Your task to perform on an android device: Open Chrome and go to settings Image 0: 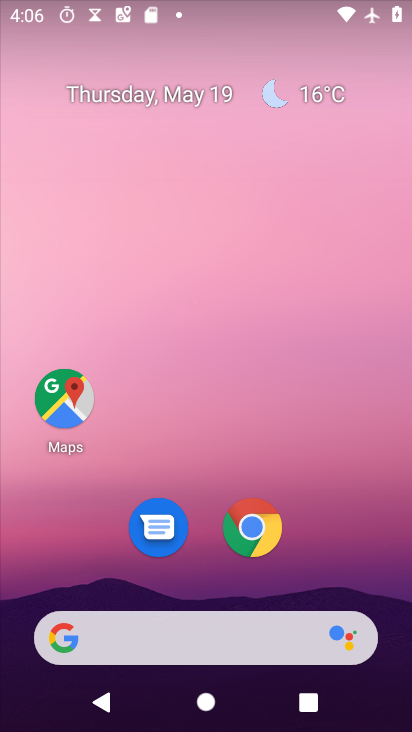
Step 0: click (250, 536)
Your task to perform on an android device: Open Chrome and go to settings Image 1: 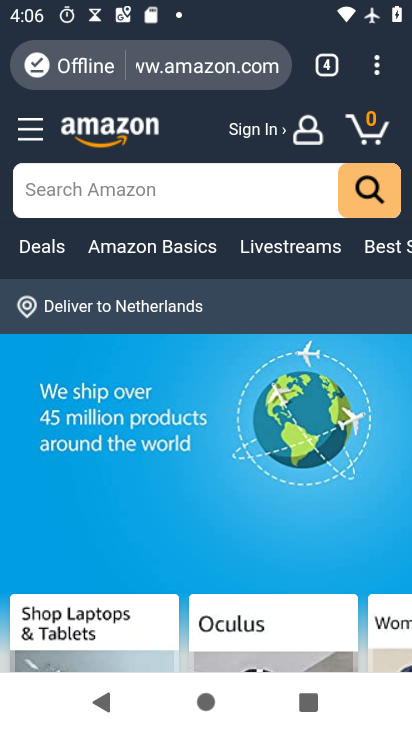
Step 1: click (372, 69)
Your task to perform on an android device: Open Chrome and go to settings Image 2: 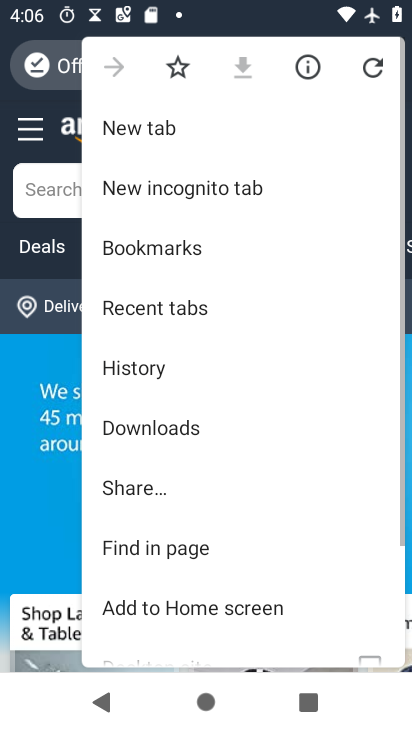
Step 2: drag from (300, 497) to (249, 94)
Your task to perform on an android device: Open Chrome and go to settings Image 3: 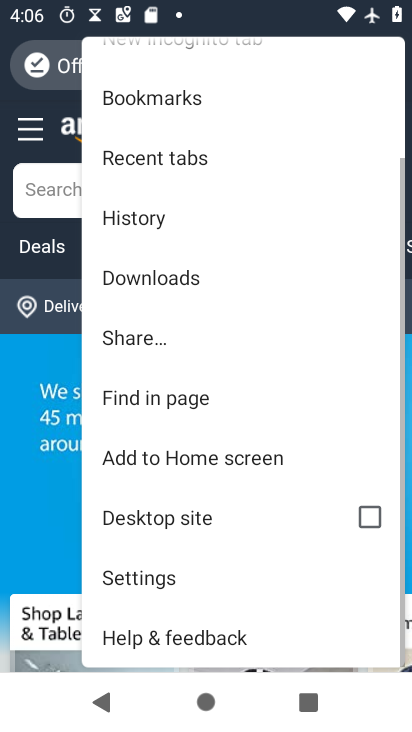
Step 3: click (230, 591)
Your task to perform on an android device: Open Chrome and go to settings Image 4: 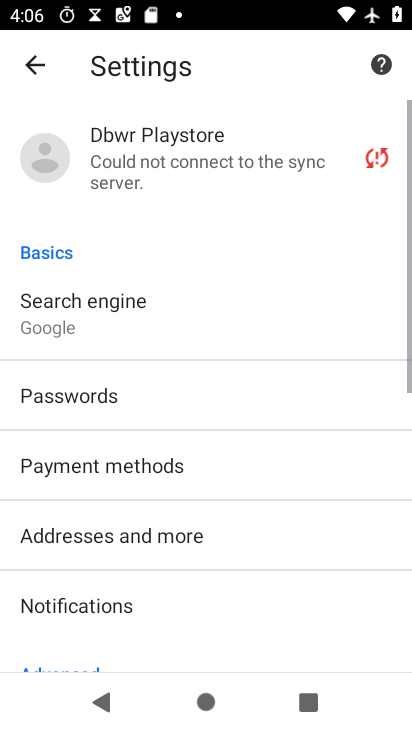
Step 4: task complete